Your task to perform on an android device: choose inbox layout in the gmail app Image 0: 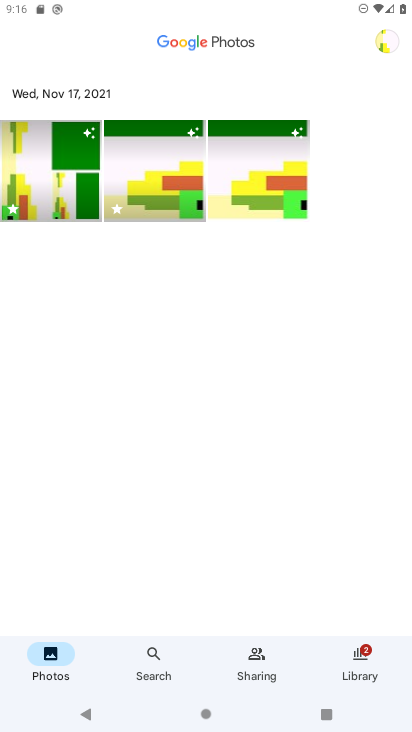
Step 0: press home button
Your task to perform on an android device: choose inbox layout in the gmail app Image 1: 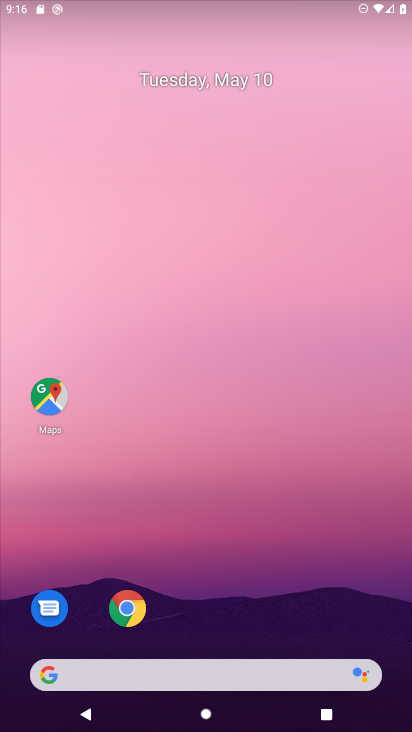
Step 1: drag from (380, 658) to (311, 102)
Your task to perform on an android device: choose inbox layout in the gmail app Image 2: 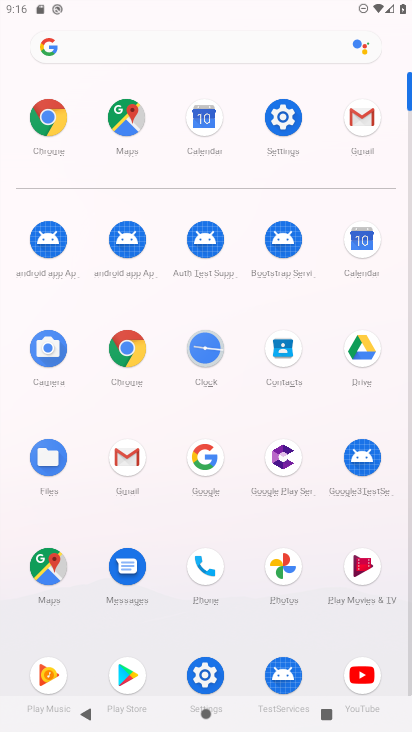
Step 2: click (365, 138)
Your task to perform on an android device: choose inbox layout in the gmail app Image 3: 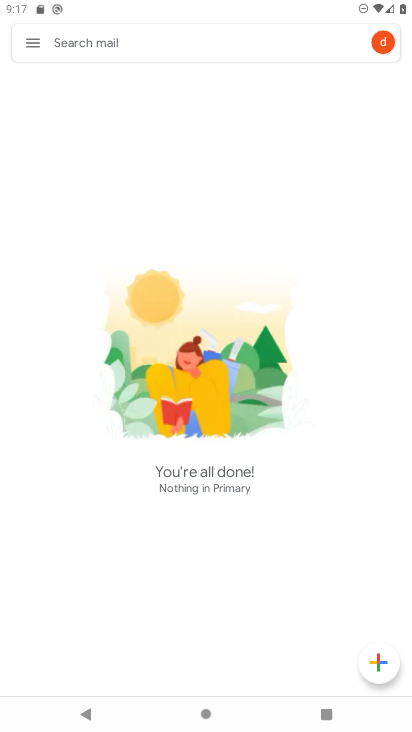
Step 3: task complete